Your task to perform on an android device: Open Amazon Image 0: 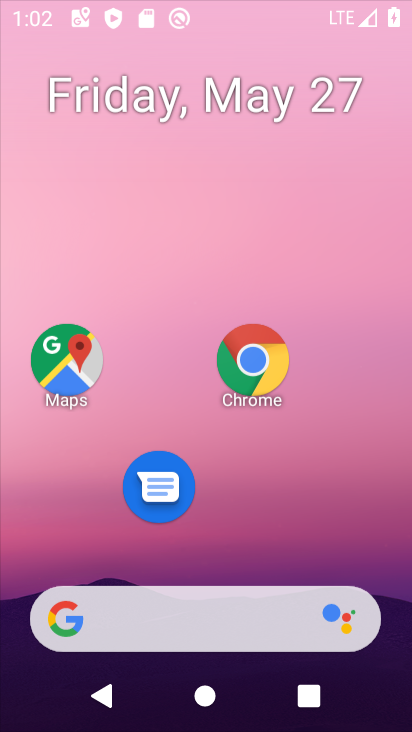
Step 0: press home button
Your task to perform on an android device: Open Amazon Image 1: 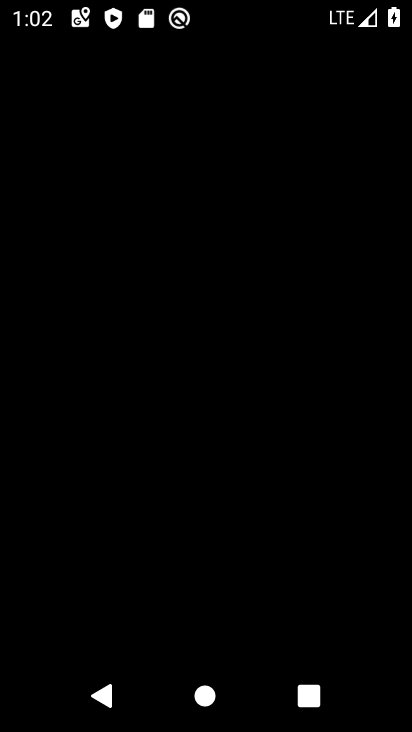
Step 1: press home button
Your task to perform on an android device: Open Amazon Image 2: 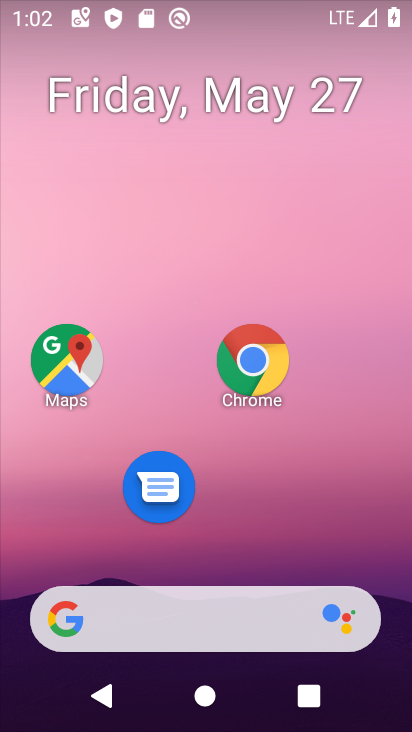
Step 2: drag from (258, 536) to (245, 30)
Your task to perform on an android device: Open Amazon Image 3: 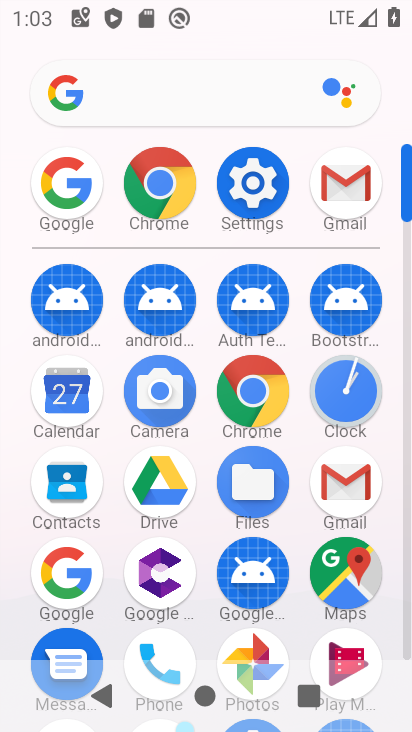
Step 3: click (164, 187)
Your task to perform on an android device: Open Amazon Image 4: 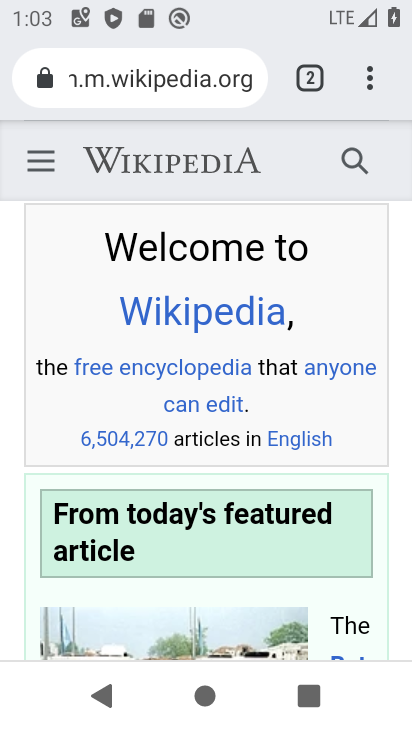
Step 4: press back button
Your task to perform on an android device: Open Amazon Image 5: 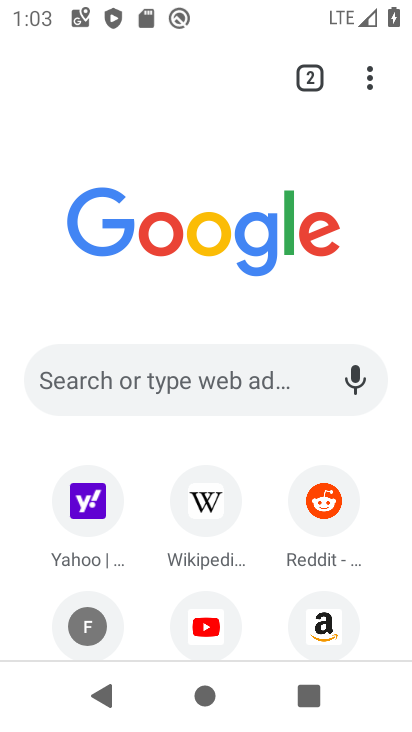
Step 5: drag from (273, 571) to (265, 325)
Your task to perform on an android device: Open Amazon Image 6: 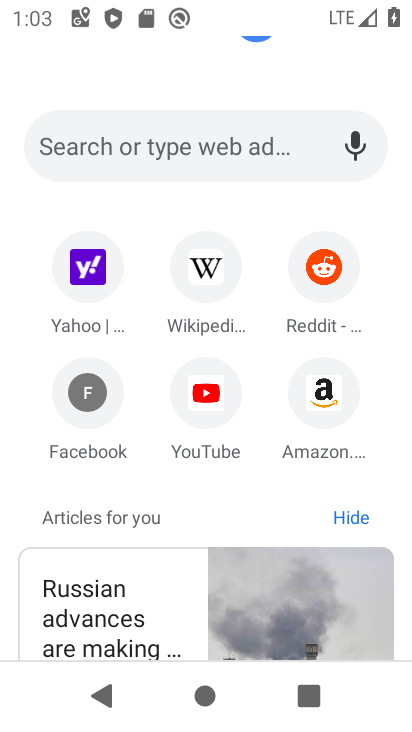
Step 6: click (322, 392)
Your task to perform on an android device: Open Amazon Image 7: 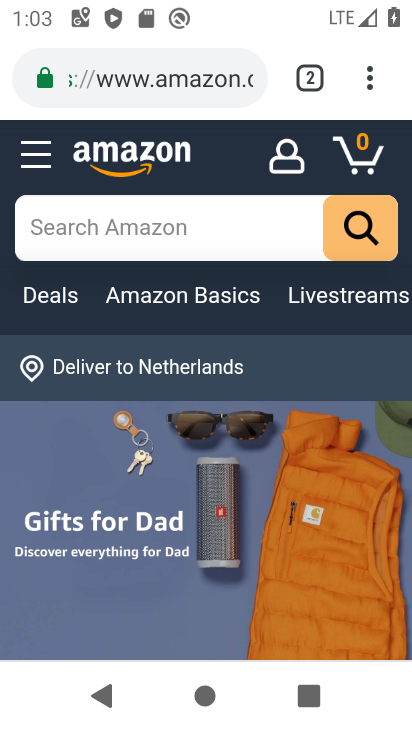
Step 7: task complete